Your task to perform on an android device: Clear the shopping cart on bestbuy.com. Add "dell xps" to the cart on bestbuy.com Image 0: 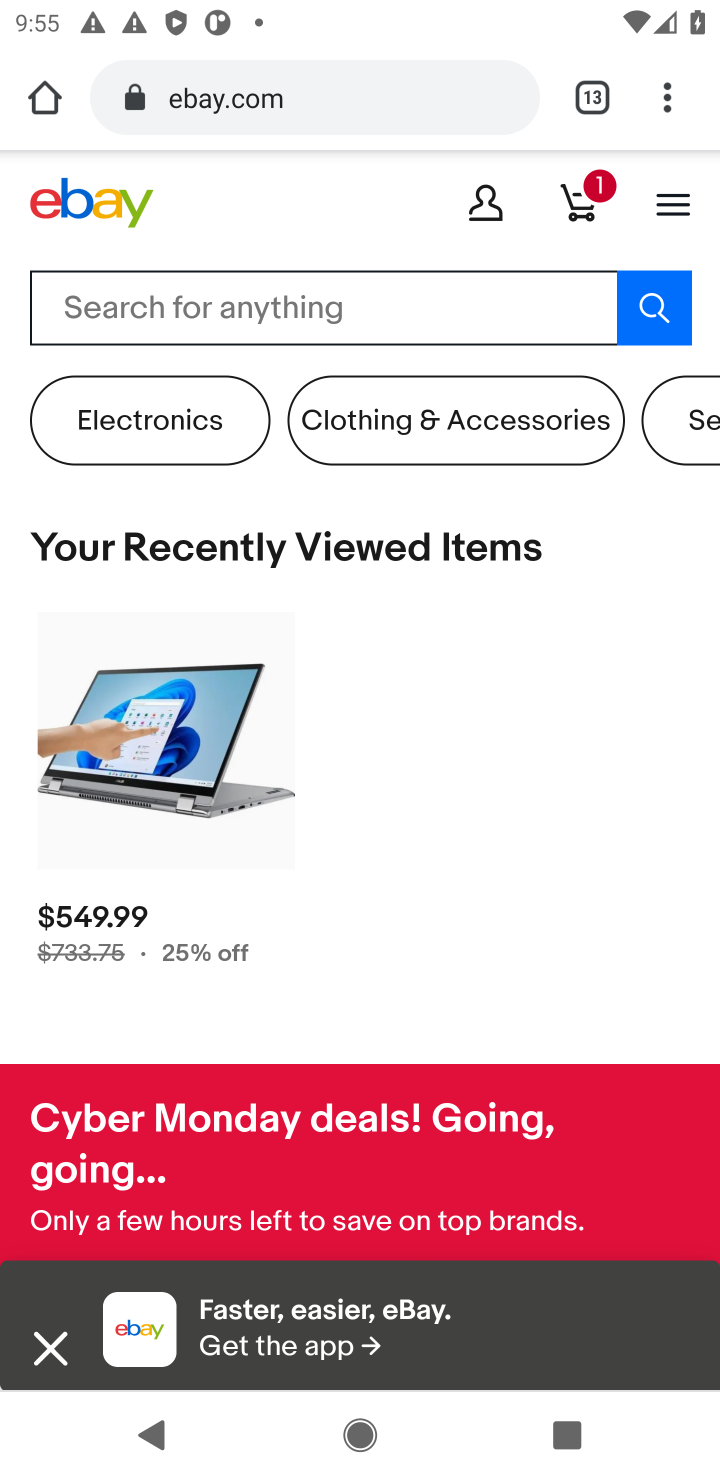
Step 0: click (429, 309)
Your task to perform on an android device: Clear the shopping cart on bestbuy.com. Add "dell xps" to the cart on bestbuy.com Image 1: 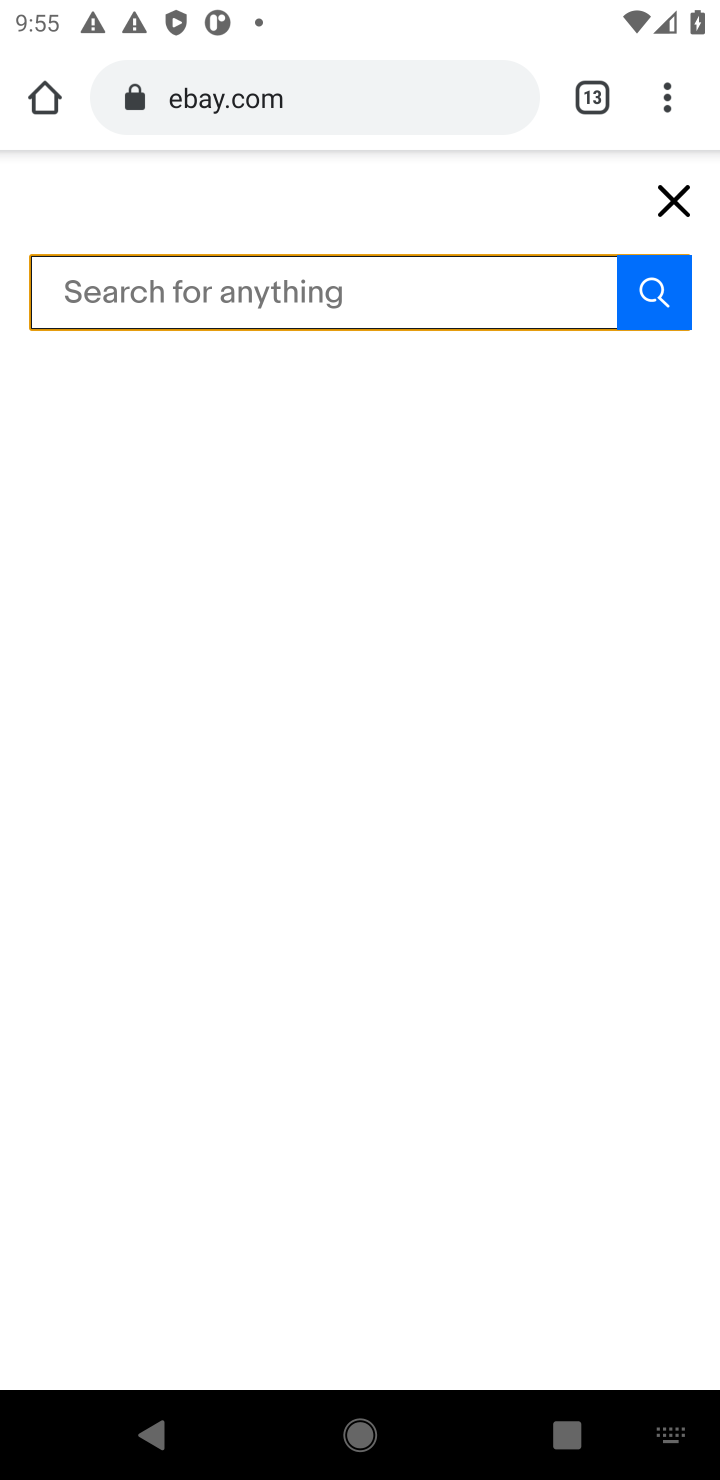
Step 1: press home button
Your task to perform on an android device: Clear the shopping cart on bestbuy.com. Add "dell xps" to the cart on bestbuy.com Image 2: 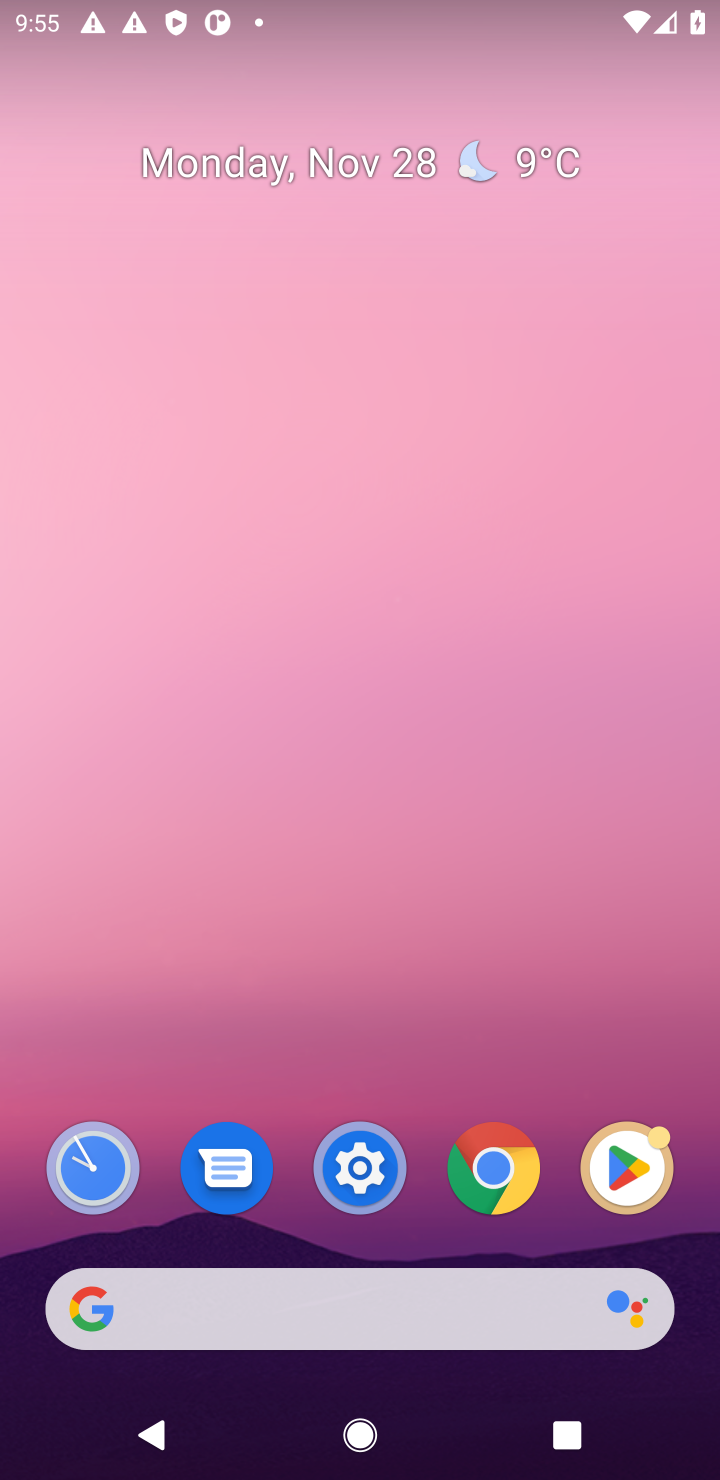
Step 2: click (337, 1284)
Your task to perform on an android device: Clear the shopping cart on bestbuy.com. Add "dell xps" to the cart on bestbuy.com Image 3: 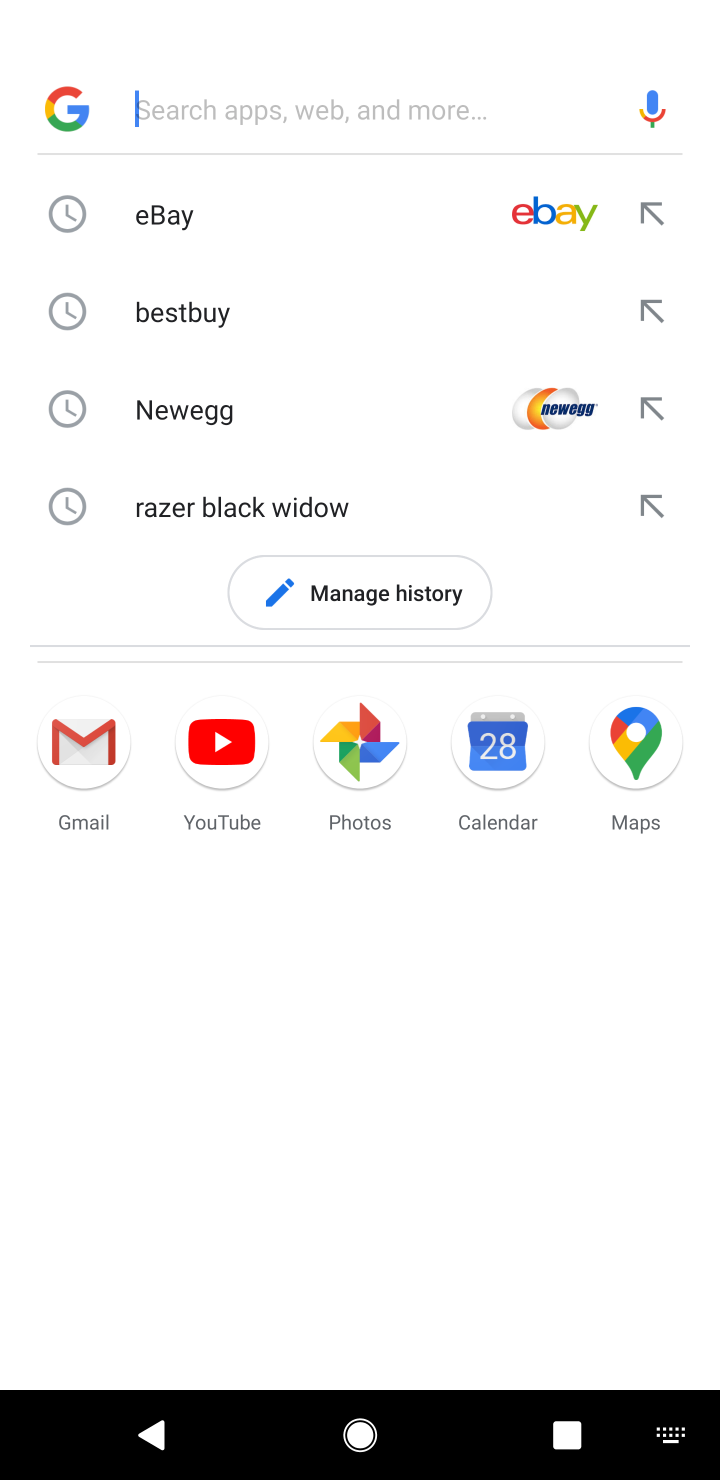
Step 3: type "bestbuy"
Your task to perform on an android device: Clear the shopping cart on bestbuy.com. Add "dell xps" to the cart on bestbuy.com Image 4: 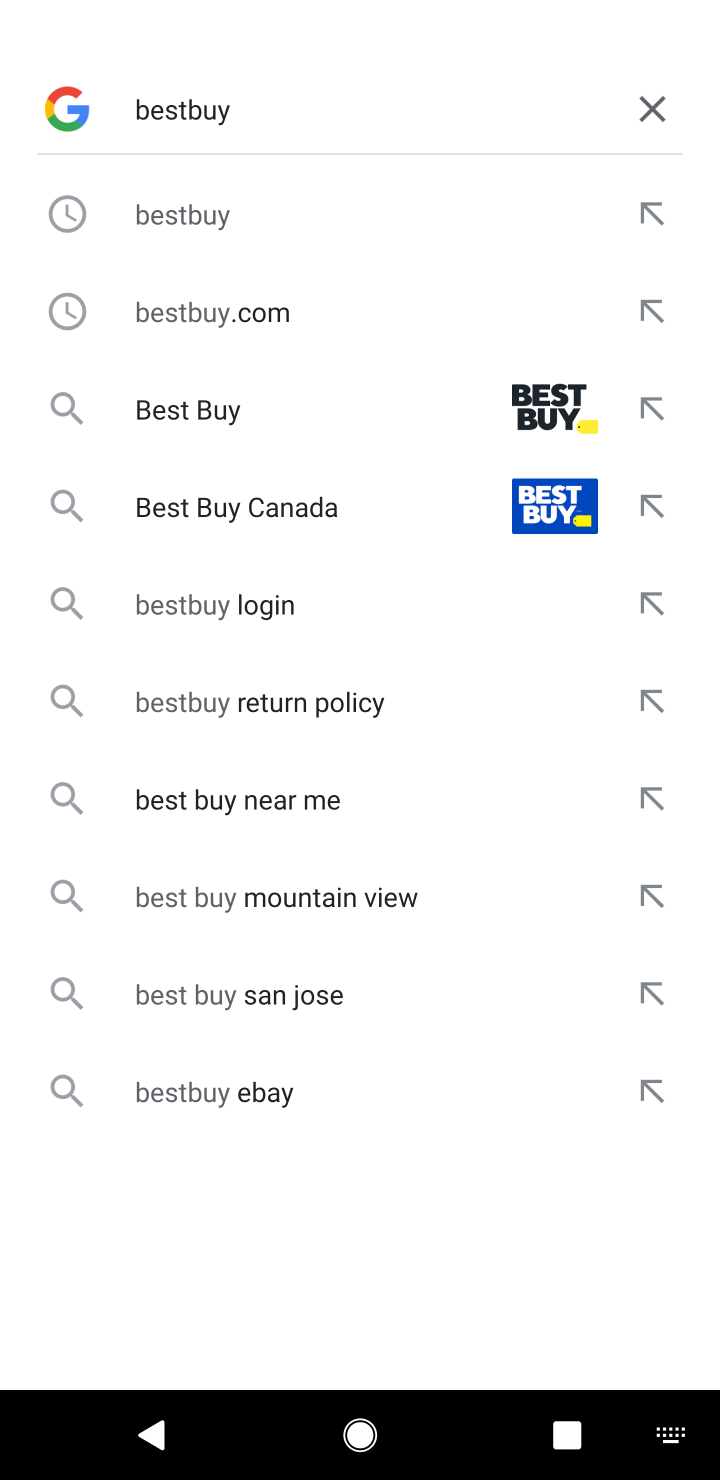
Step 4: click (532, 424)
Your task to perform on an android device: Clear the shopping cart on bestbuy.com. Add "dell xps" to the cart on bestbuy.com Image 5: 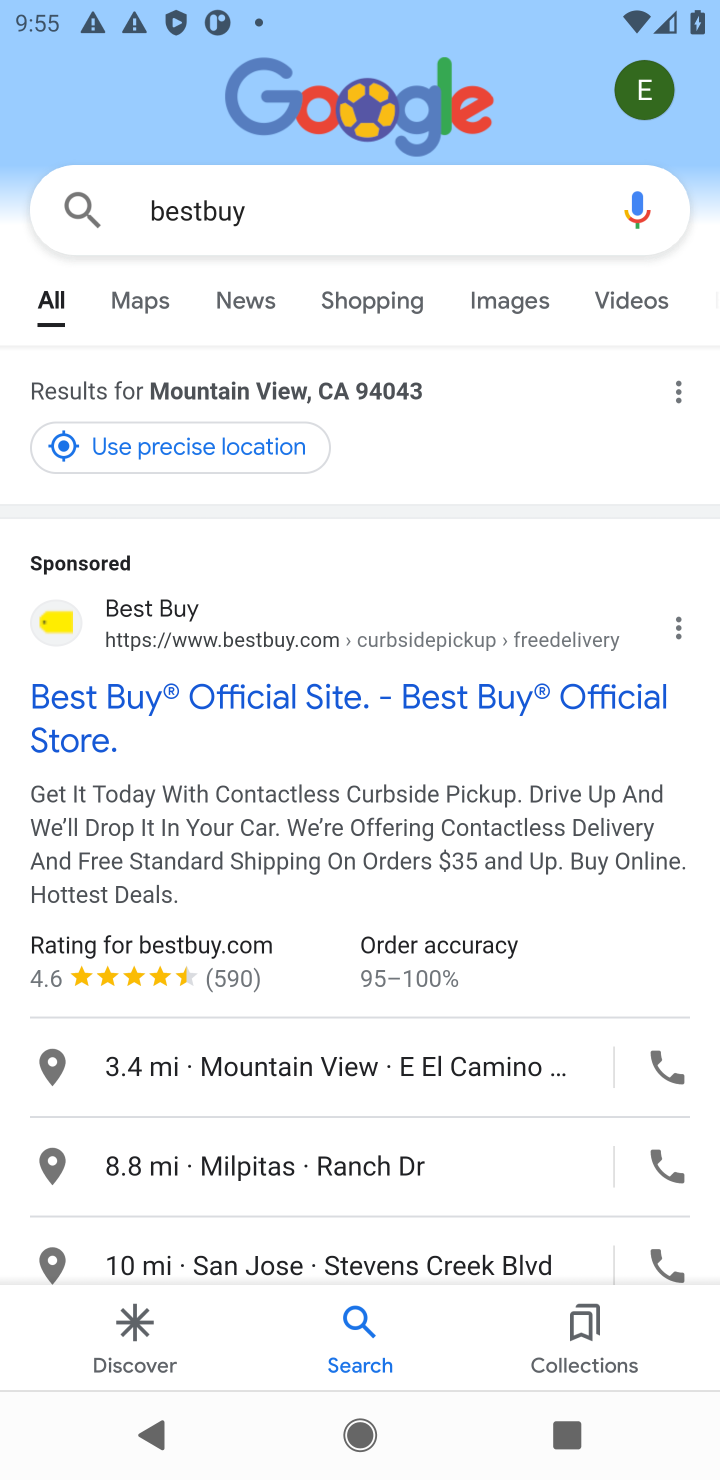
Step 5: click (352, 695)
Your task to perform on an android device: Clear the shopping cart on bestbuy.com. Add "dell xps" to the cart on bestbuy.com Image 6: 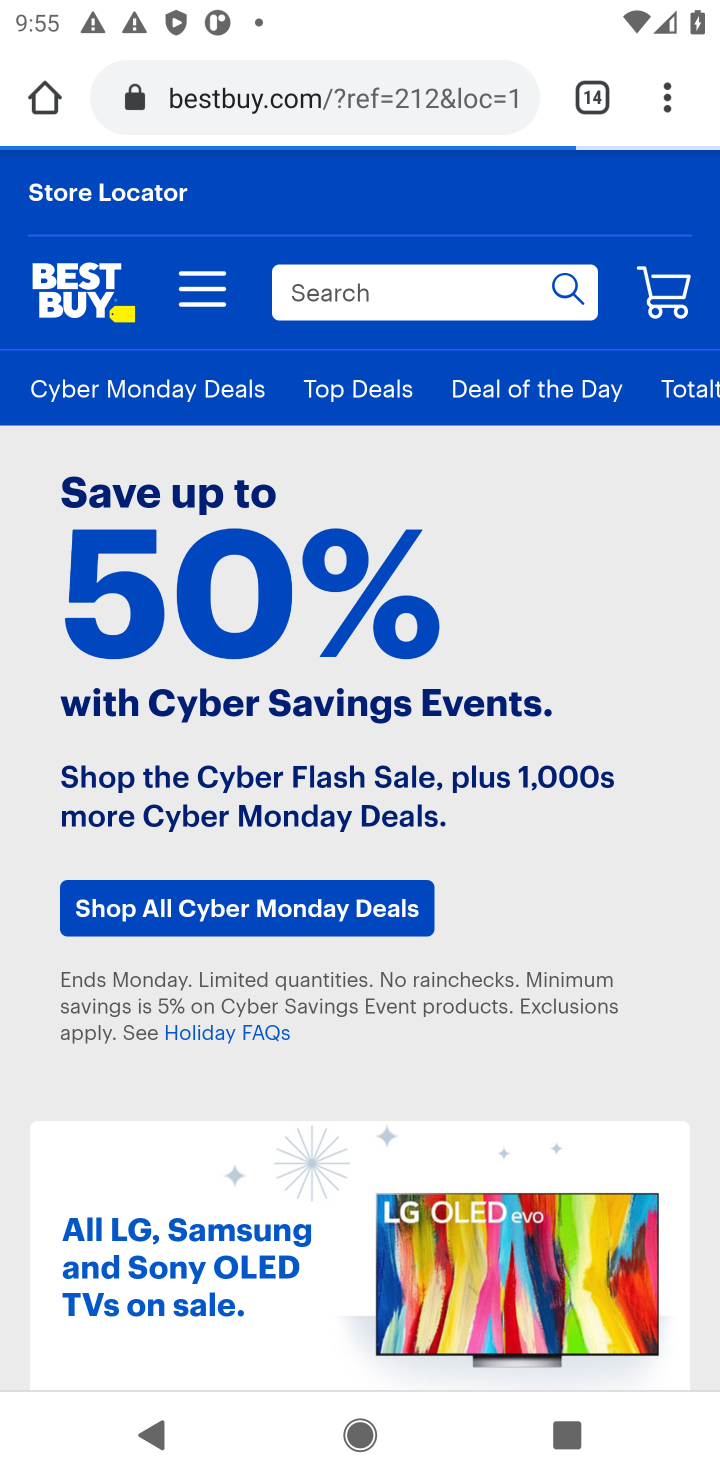
Step 6: click (315, 297)
Your task to perform on an android device: Clear the shopping cart on bestbuy.com. Add "dell xps" to the cart on bestbuy.com Image 7: 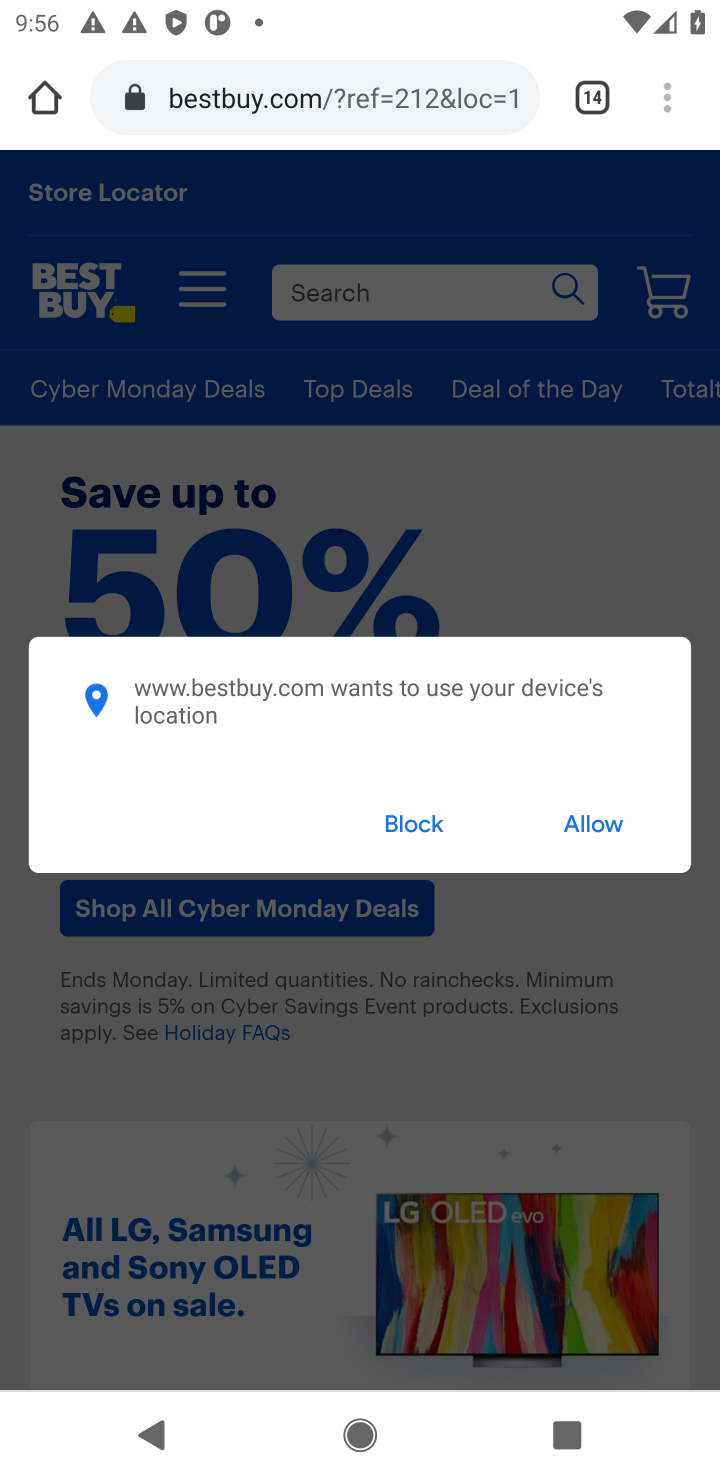
Step 7: type "dell xps"
Your task to perform on an android device: Clear the shopping cart on bestbuy.com. Add "dell xps" to the cart on bestbuy.com Image 8: 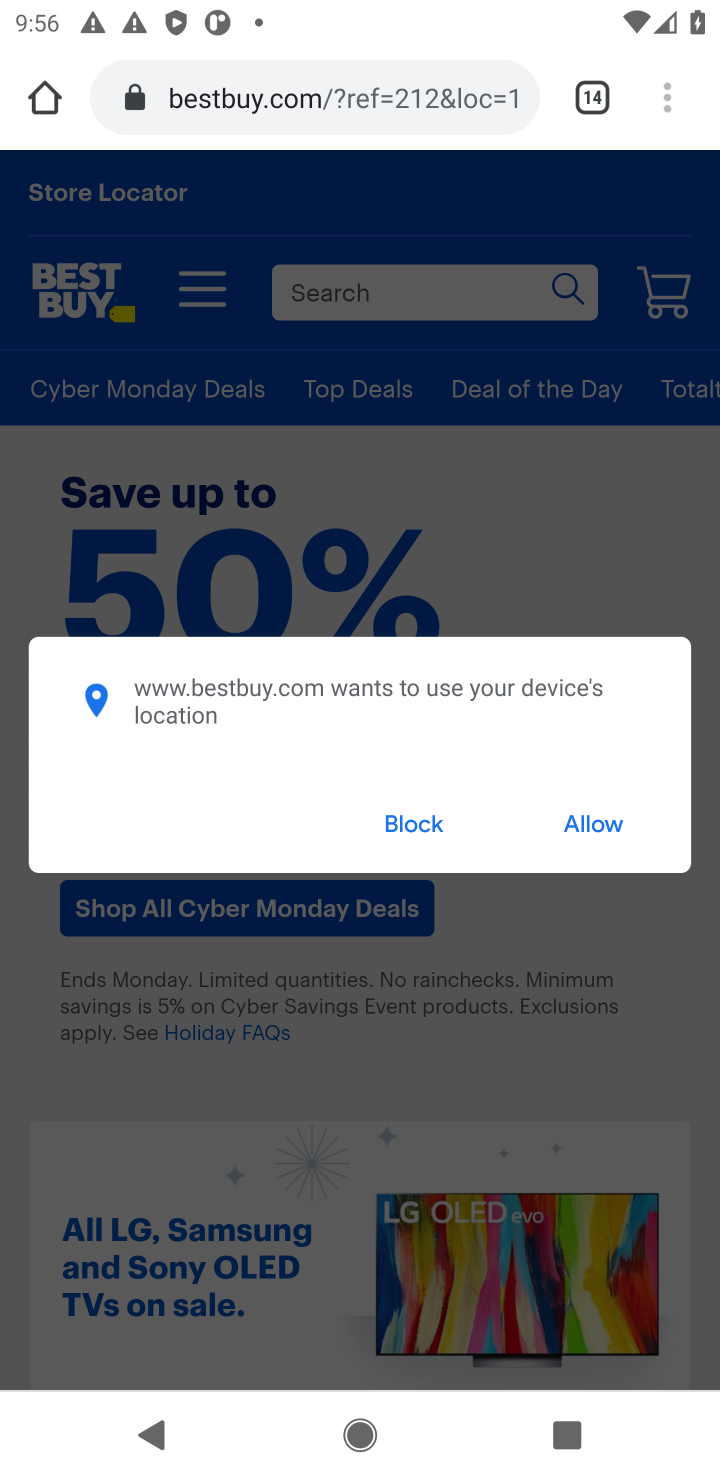
Step 8: click (440, 833)
Your task to perform on an android device: Clear the shopping cart on bestbuy.com. Add "dell xps" to the cart on bestbuy.com Image 9: 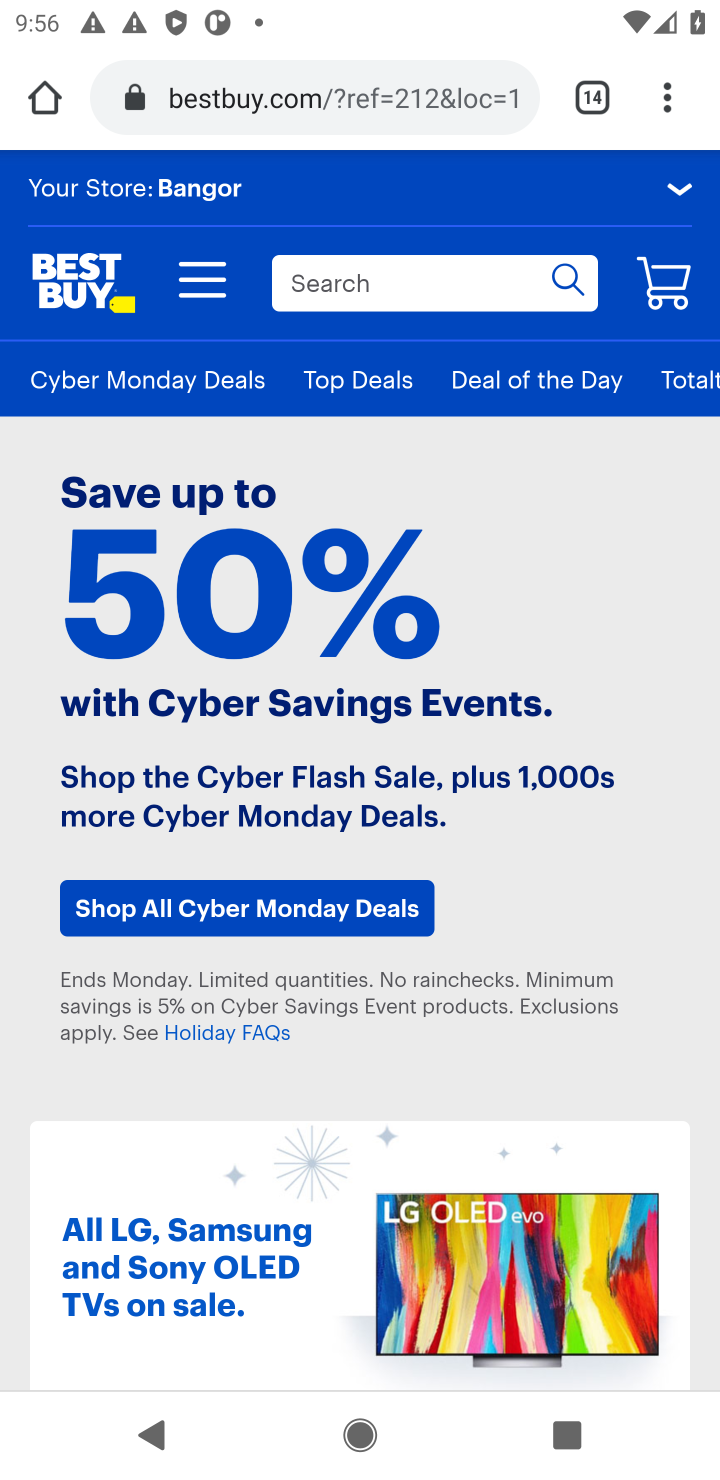
Step 9: click (371, 280)
Your task to perform on an android device: Clear the shopping cart on bestbuy.com. Add "dell xps" to the cart on bestbuy.com Image 10: 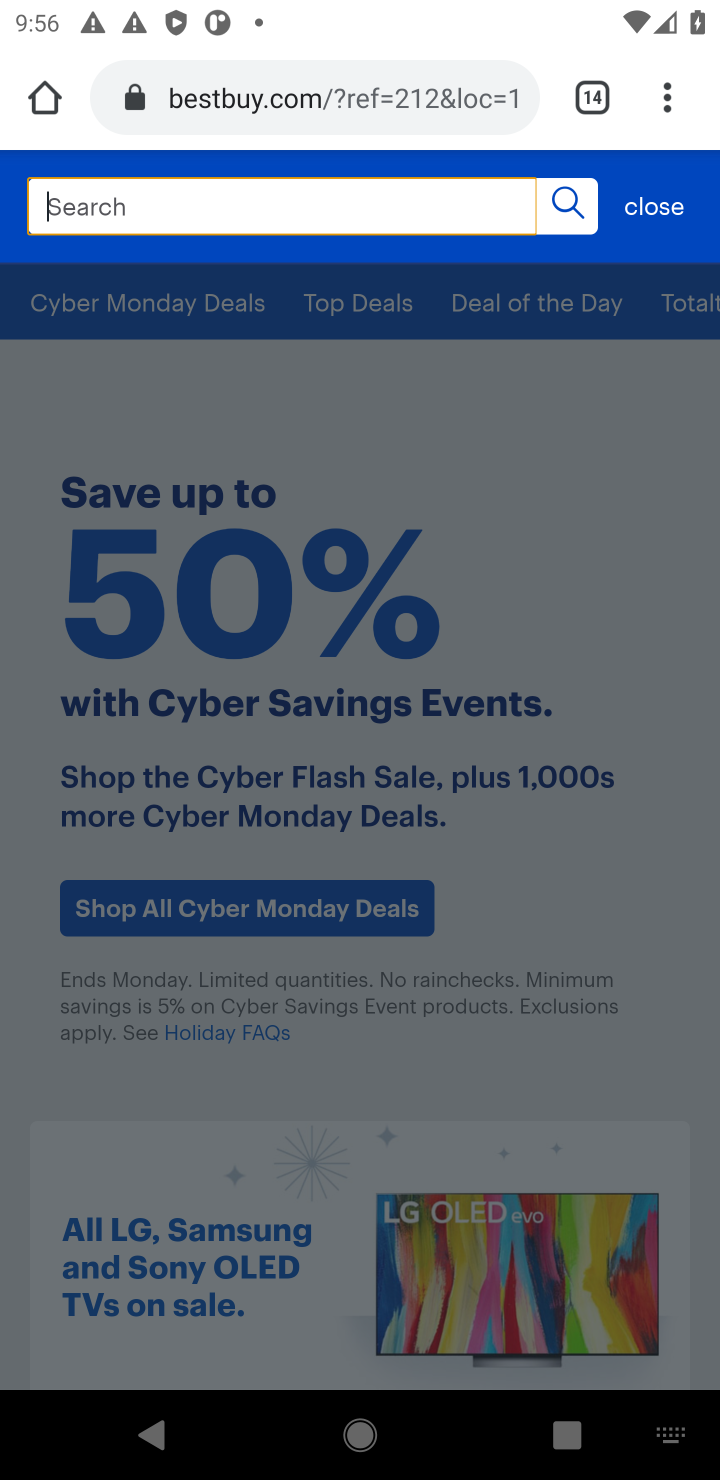
Step 10: type "dell xps"
Your task to perform on an android device: Clear the shopping cart on bestbuy.com. Add "dell xps" to the cart on bestbuy.com Image 11: 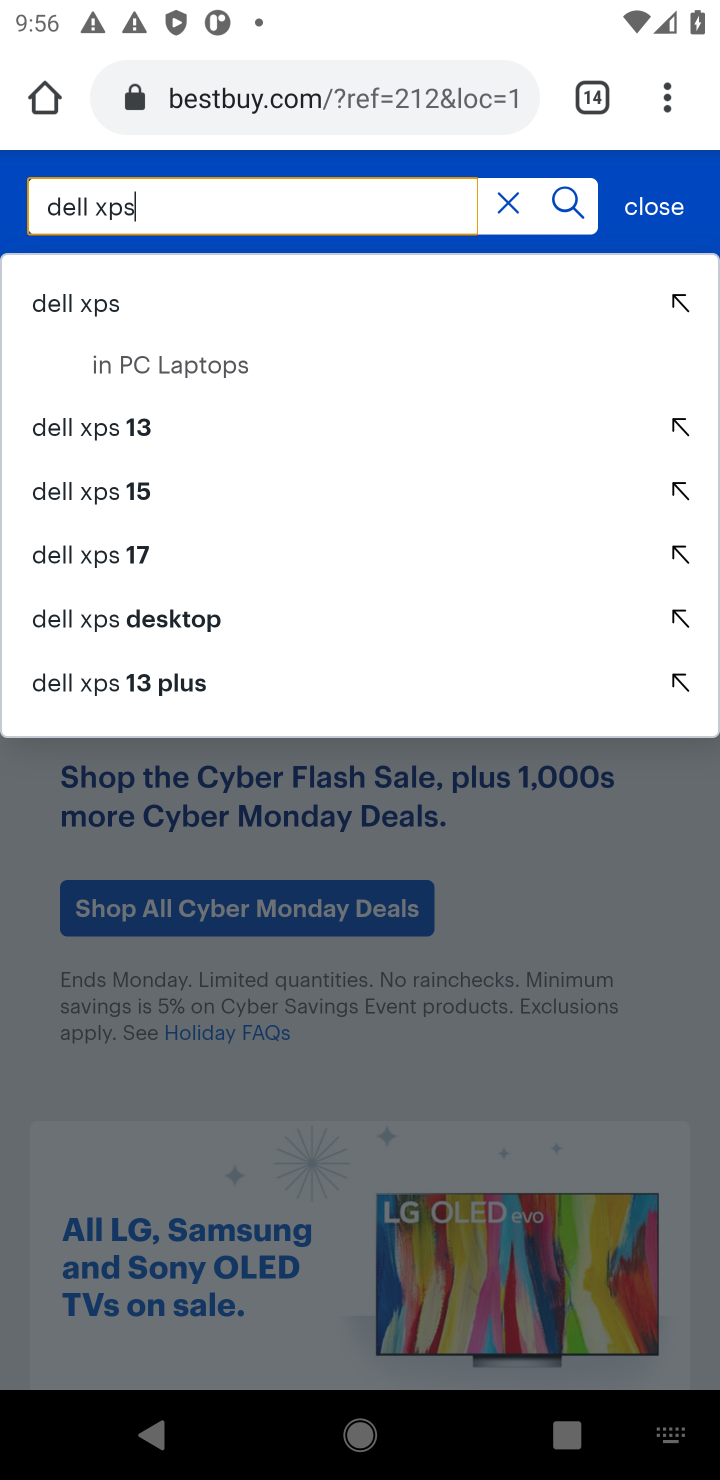
Step 11: click (121, 290)
Your task to perform on an android device: Clear the shopping cart on bestbuy.com. Add "dell xps" to the cart on bestbuy.com Image 12: 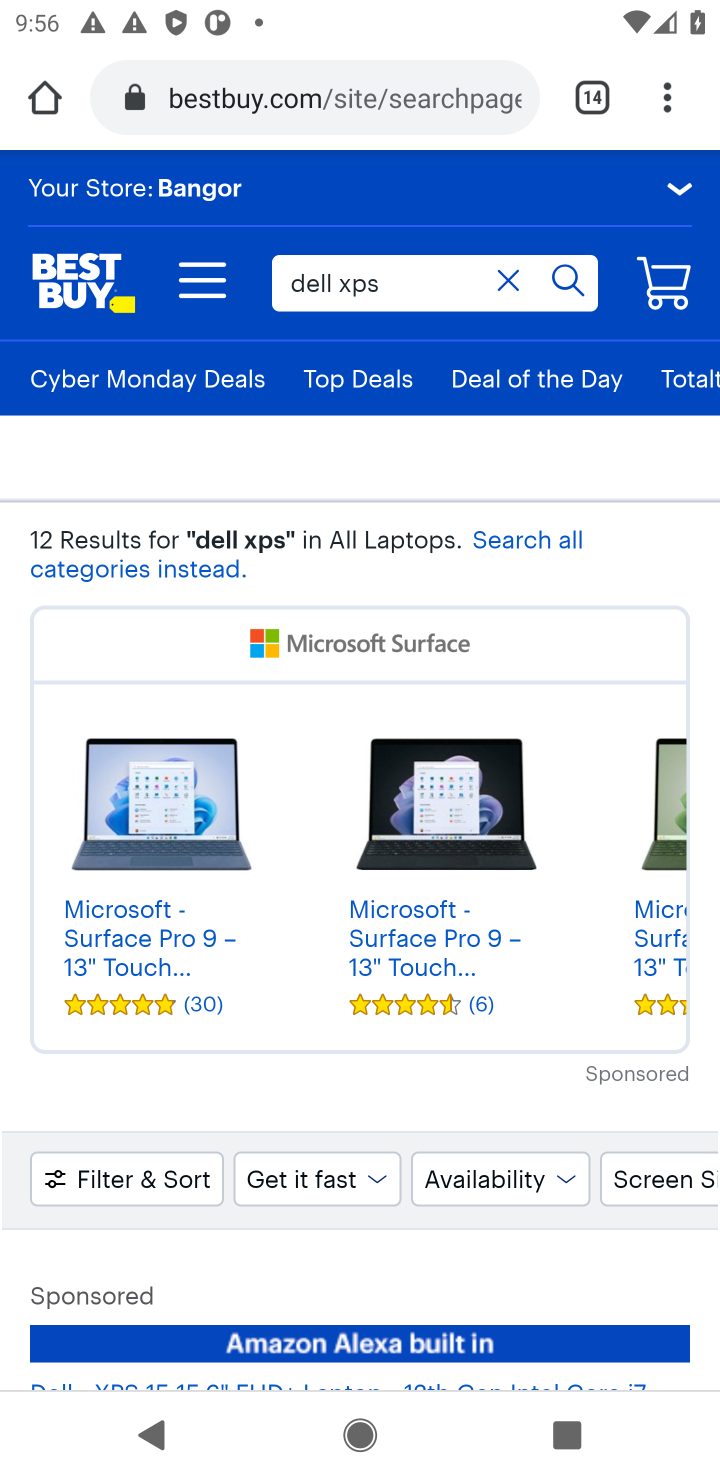
Step 12: task complete